Your task to perform on an android device: open device folders in google photos Image 0: 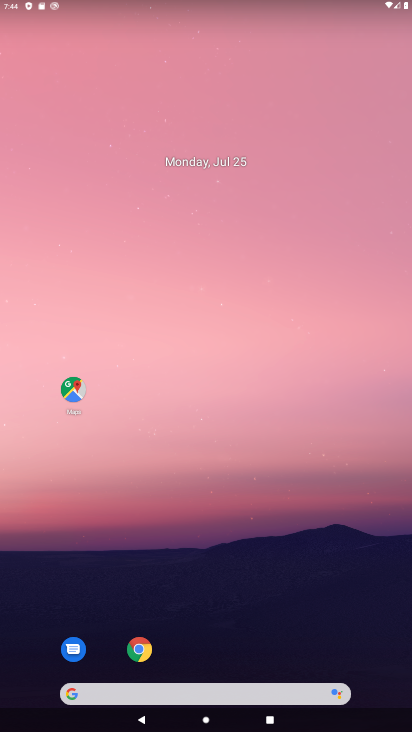
Step 0: drag from (378, 673) to (372, 240)
Your task to perform on an android device: open device folders in google photos Image 1: 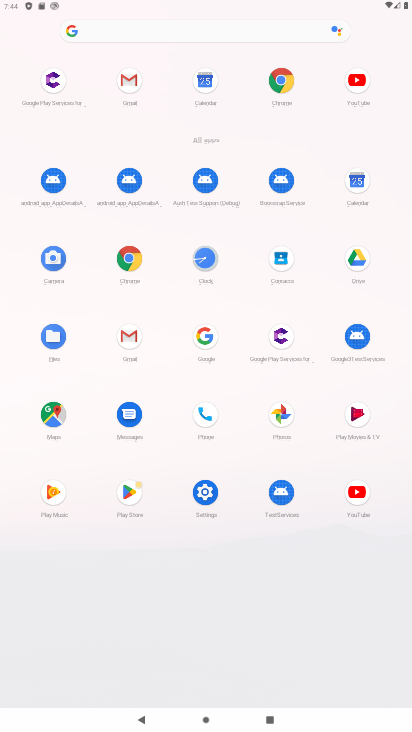
Step 1: click (282, 413)
Your task to perform on an android device: open device folders in google photos Image 2: 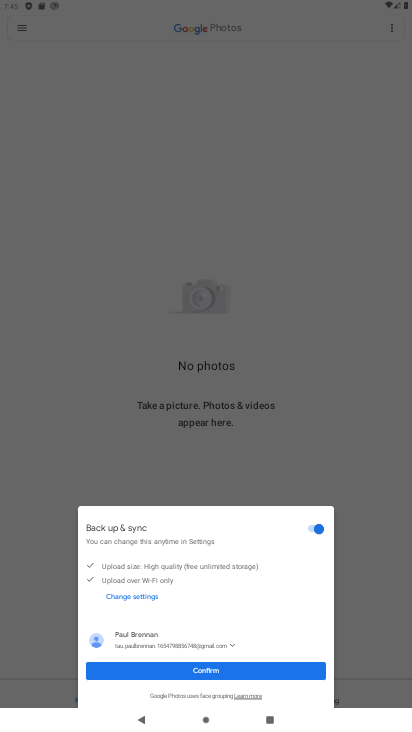
Step 2: click (202, 673)
Your task to perform on an android device: open device folders in google photos Image 3: 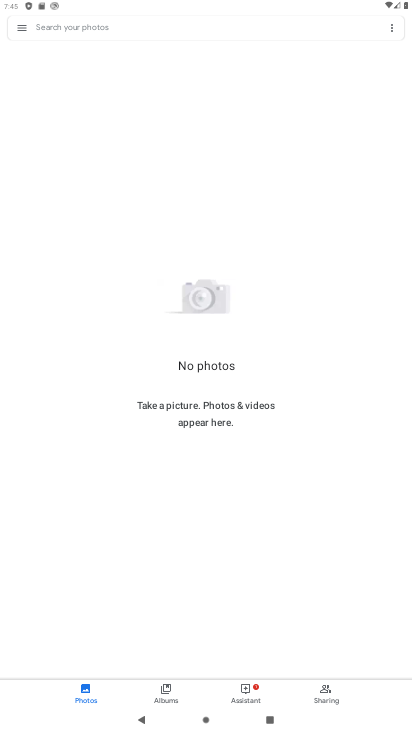
Step 3: click (21, 30)
Your task to perform on an android device: open device folders in google photos Image 4: 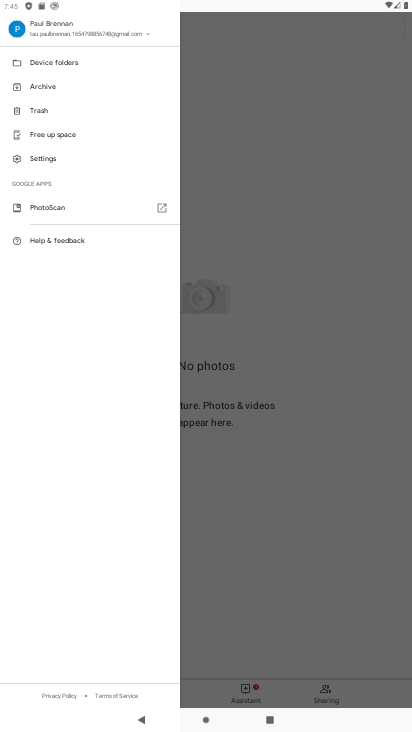
Step 4: click (55, 60)
Your task to perform on an android device: open device folders in google photos Image 5: 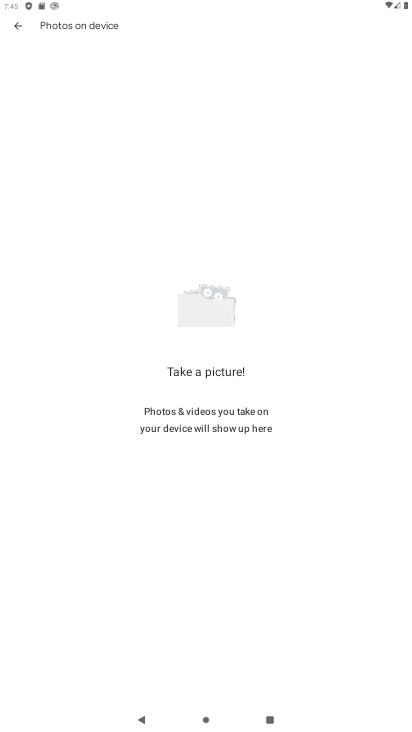
Step 5: task complete